Your task to perform on an android device: Open Google Maps Image 0: 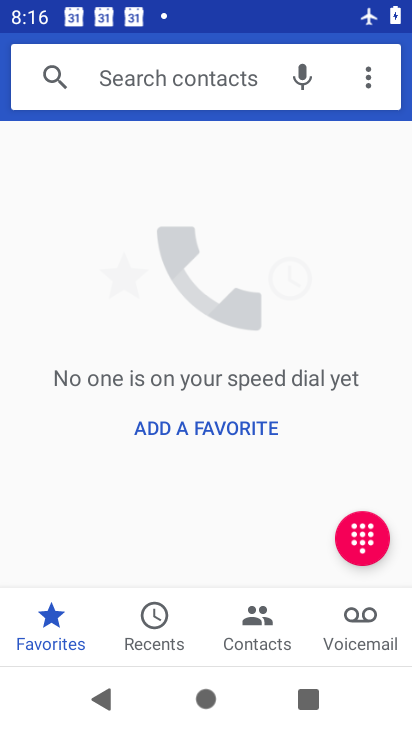
Step 0: press home button
Your task to perform on an android device: Open Google Maps Image 1: 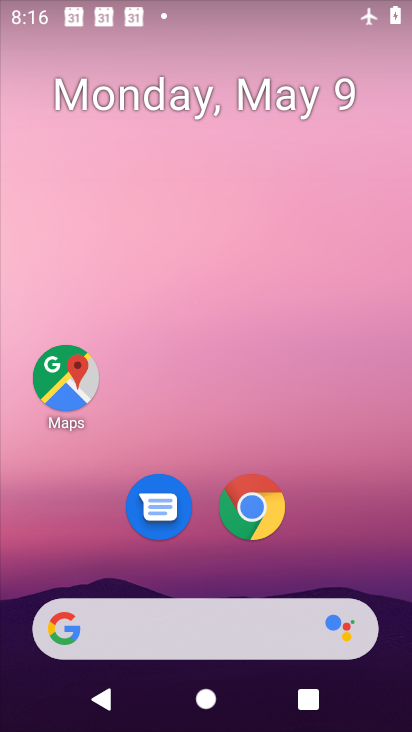
Step 1: drag from (245, 590) to (402, 605)
Your task to perform on an android device: Open Google Maps Image 2: 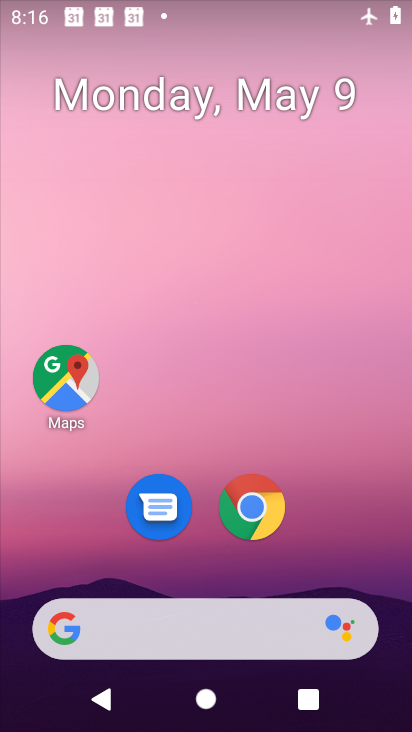
Step 2: click (350, 597)
Your task to perform on an android device: Open Google Maps Image 3: 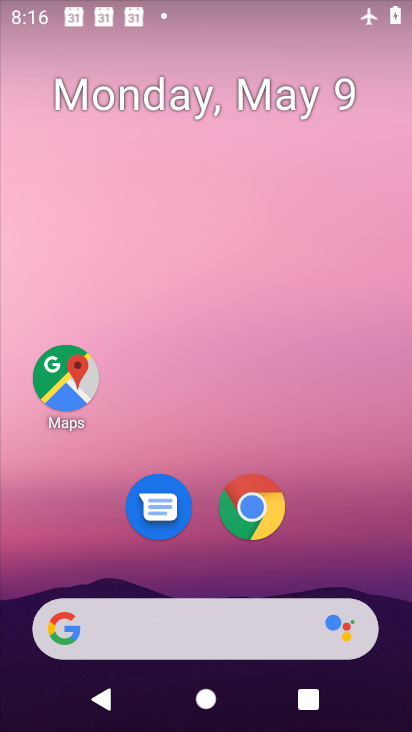
Step 3: drag from (352, 590) to (305, 25)
Your task to perform on an android device: Open Google Maps Image 4: 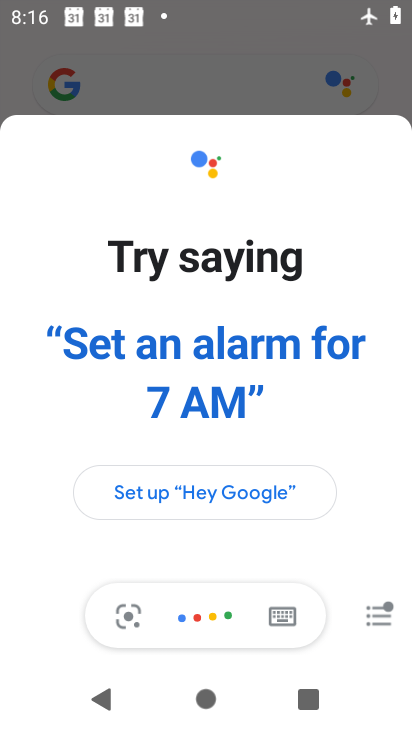
Step 4: press back button
Your task to perform on an android device: Open Google Maps Image 5: 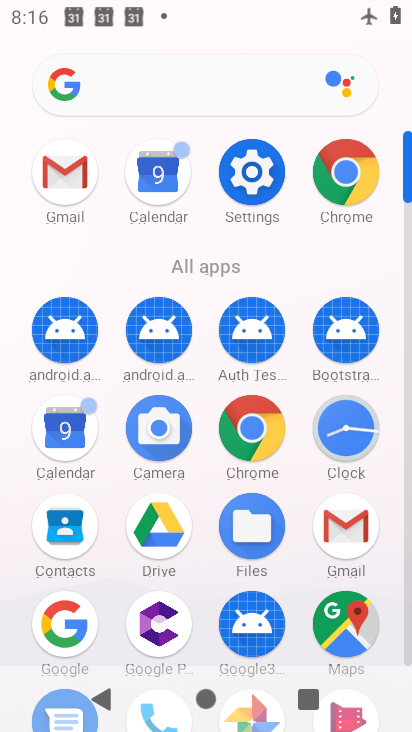
Step 5: click (358, 612)
Your task to perform on an android device: Open Google Maps Image 6: 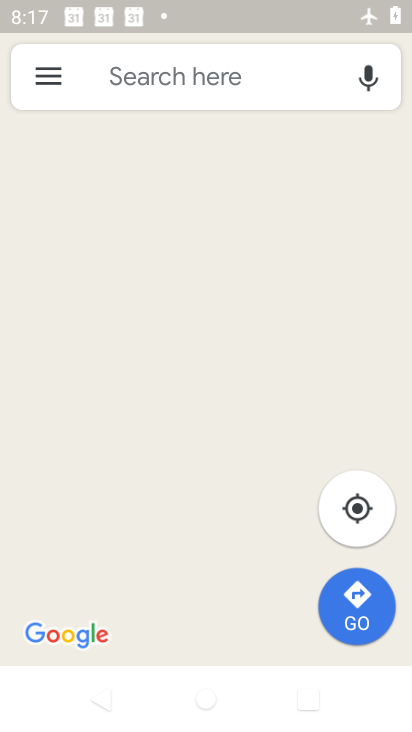
Step 6: task complete